Your task to perform on an android device: Open the stopwatch Image 0: 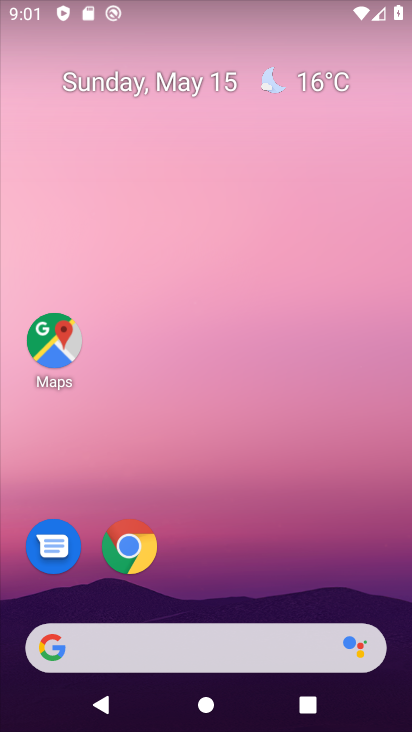
Step 0: drag from (192, 605) to (275, 171)
Your task to perform on an android device: Open the stopwatch Image 1: 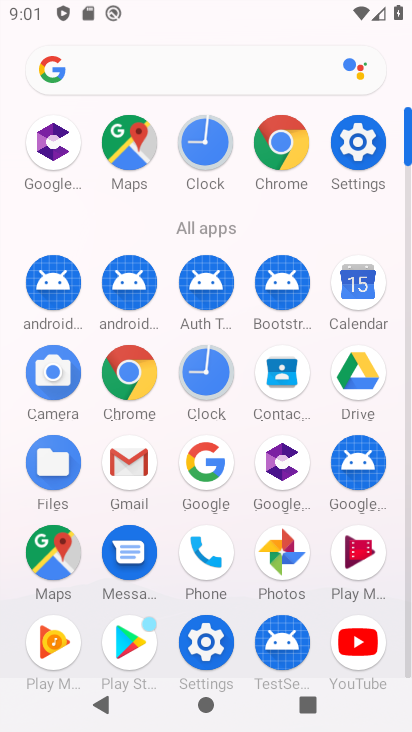
Step 1: click (217, 375)
Your task to perform on an android device: Open the stopwatch Image 2: 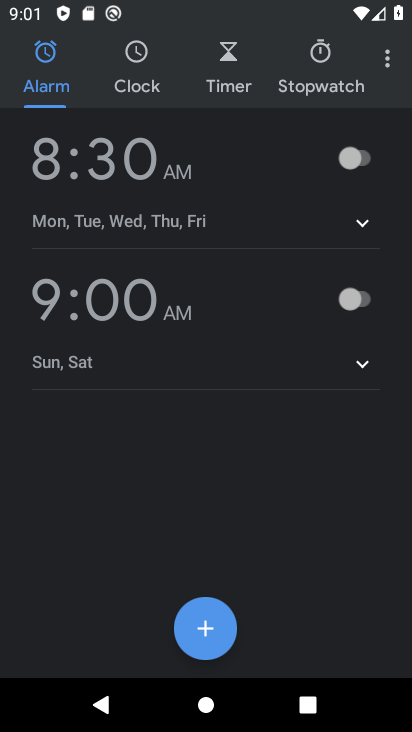
Step 2: click (319, 75)
Your task to perform on an android device: Open the stopwatch Image 3: 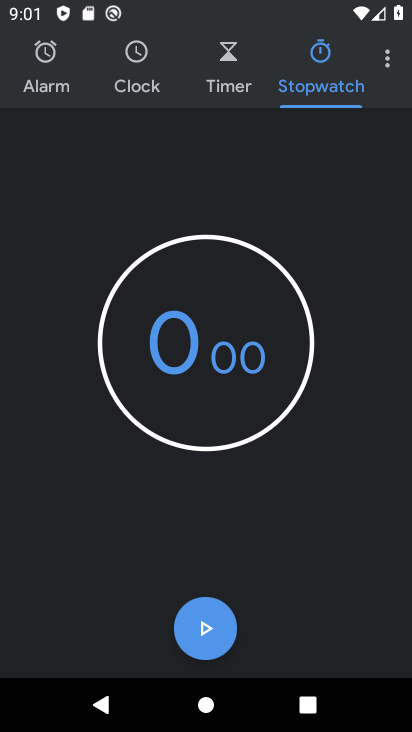
Step 3: task complete